Your task to perform on an android device: check google app version Image 0: 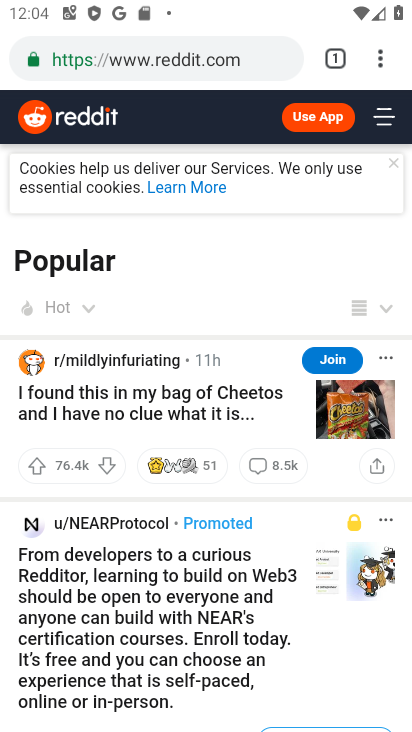
Step 0: press home button
Your task to perform on an android device: check google app version Image 1: 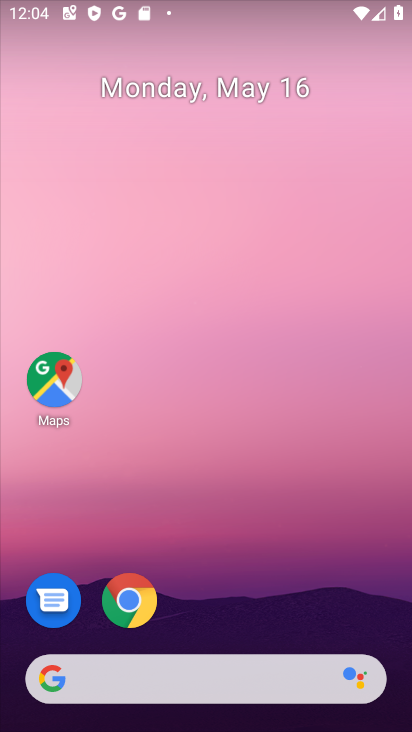
Step 1: drag from (190, 706) to (151, 165)
Your task to perform on an android device: check google app version Image 2: 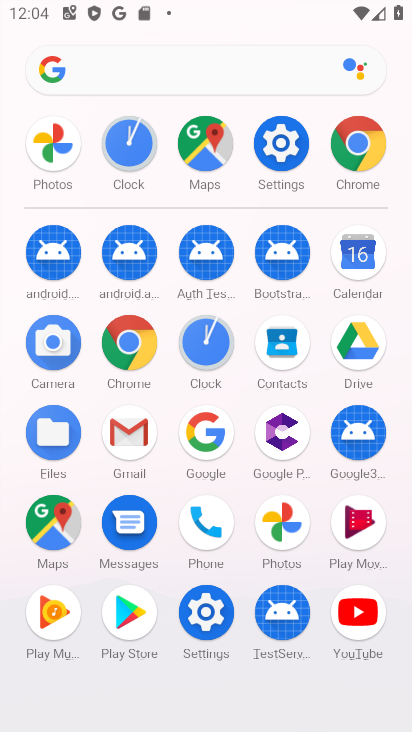
Step 2: click (187, 439)
Your task to perform on an android device: check google app version Image 3: 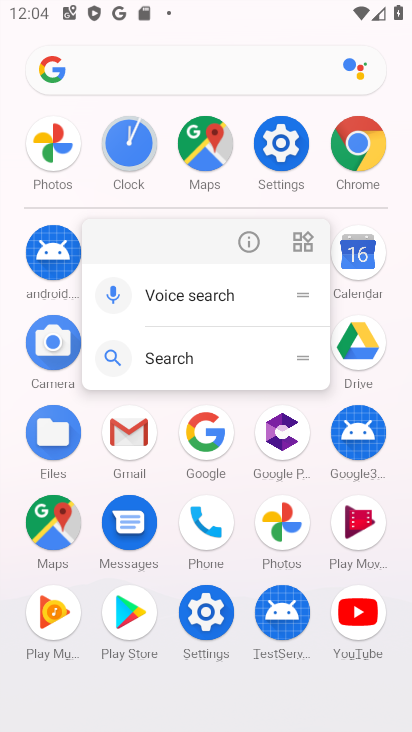
Step 3: click (247, 250)
Your task to perform on an android device: check google app version Image 4: 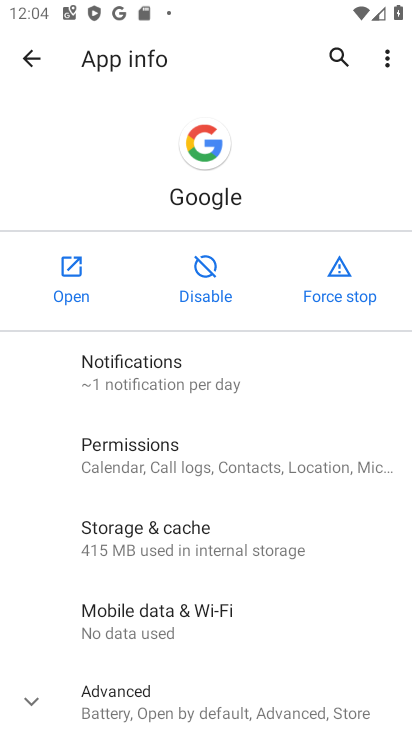
Step 4: drag from (192, 626) to (5, 489)
Your task to perform on an android device: check google app version Image 5: 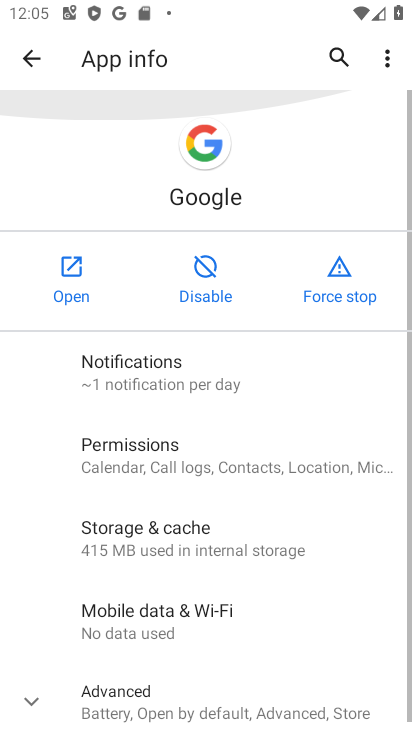
Step 5: drag from (119, 631) to (48, 8)
Your task to perform on an android device: check google app version Image 6: 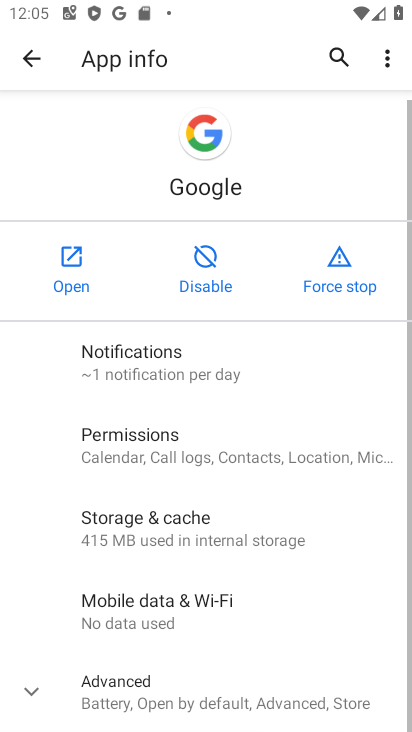
Step 6: click (135, 704)
Your task to perform on an android device: check google app version Image 7: 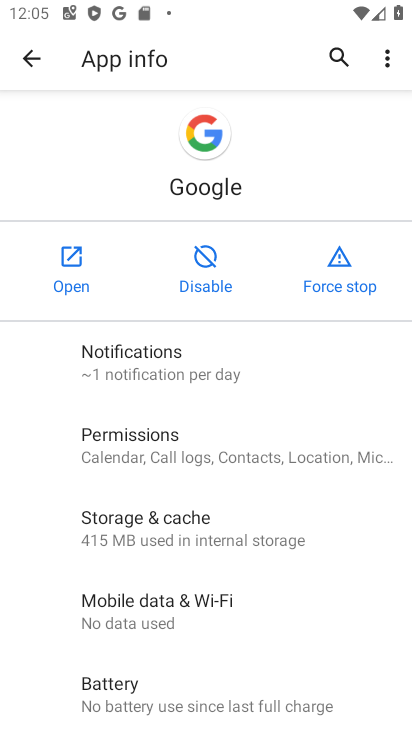
Step 7: task complete